Your task to perform on an android device: When is my next meeting? Image 0: 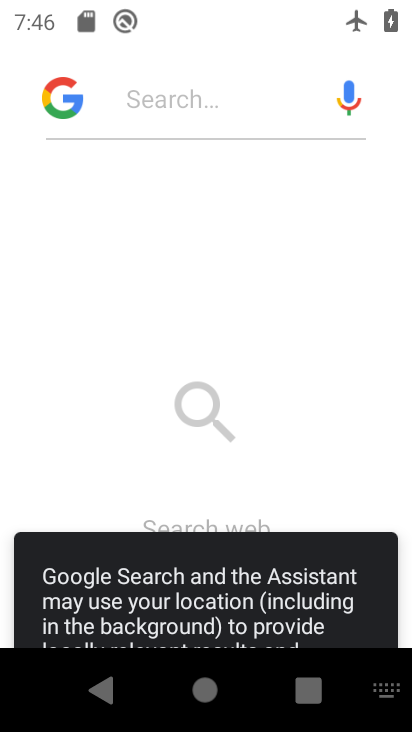
Step 0: press home button
Your task to perform on an android device: When is my next meeting? Image 1: 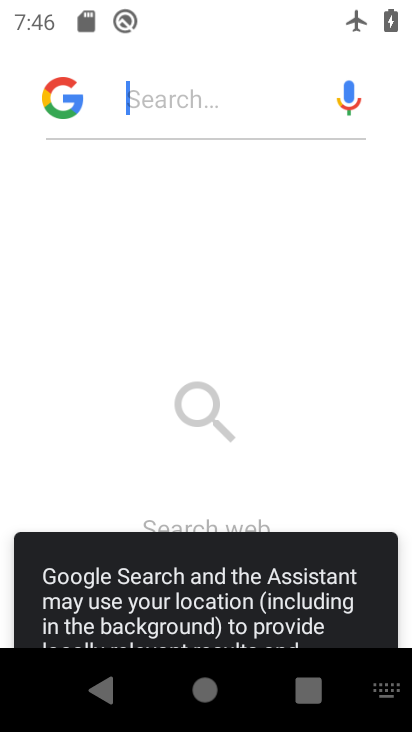
Step 1: press home button
Your task to perform on an android device: When is my next meeting? Image 2: 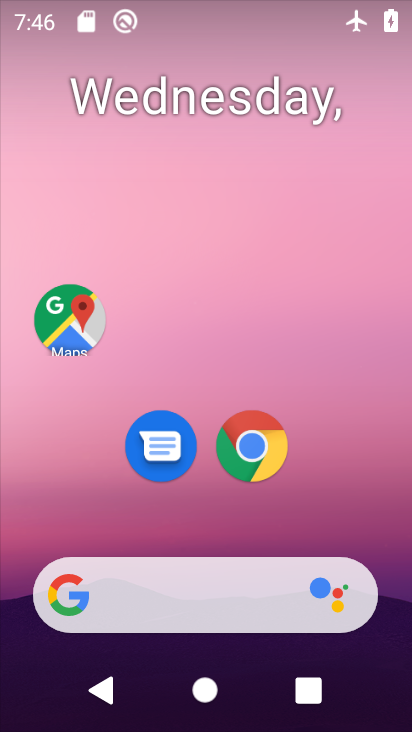
Step 2: drag from (42, 386) to (411, 406)
Your task to perform on an android device: When is my next meeting? Image 3: 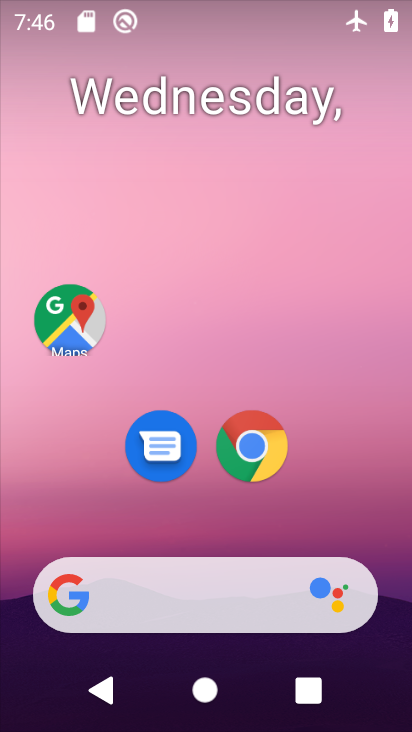
Step 3: drag from (194, 494) to (200, 9)
Your task to perform on an android device: When is my next meeting? Image 4: 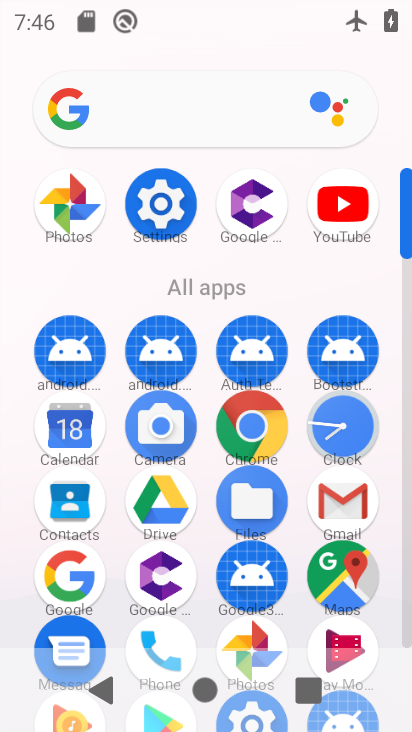
Step 4: click (66, 426)
Your task to perform on an android device: When is my next meeting? Image 5: 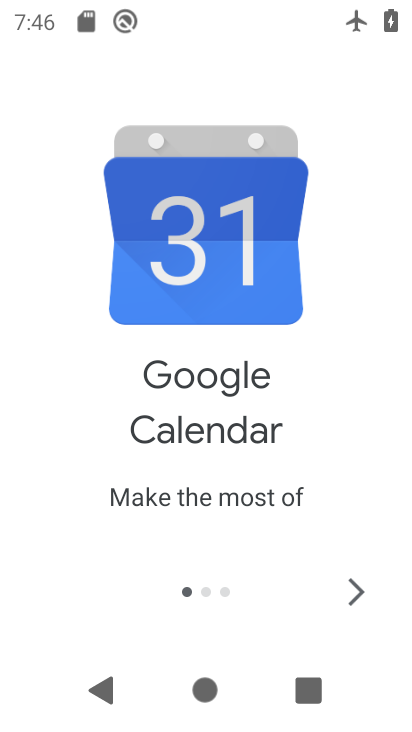
Step 5: click (353, 590)
Your task to perform on an android device: When is my next meeting? Image 6: 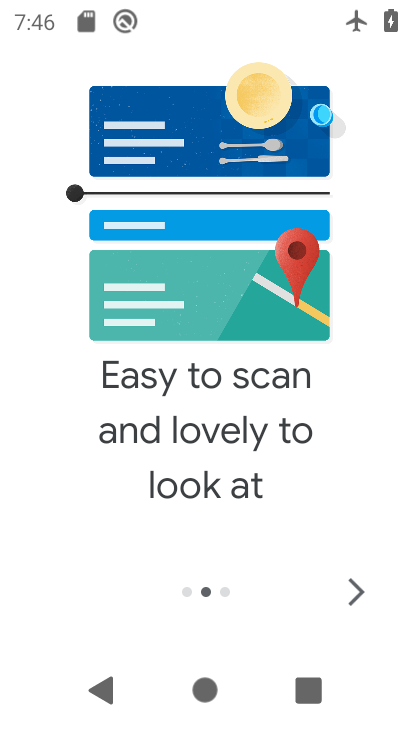
Step 6: click (353, 590)
Your task to perform on an android device: When is my next meeting? Image 7: 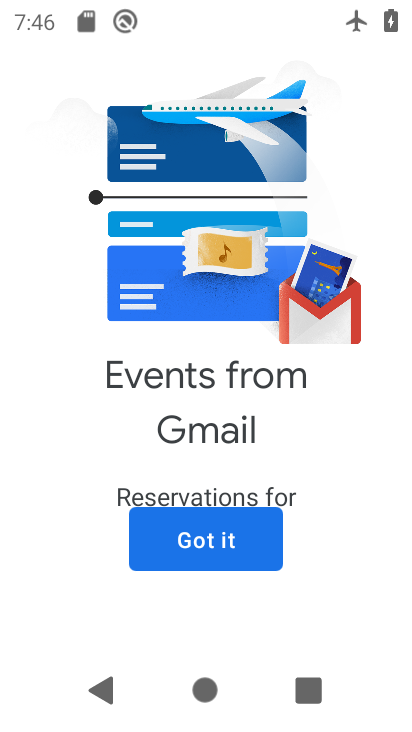
Step 7: click (178, 536)
Your task to perform on an android device: When is my next meeting? Image 8: 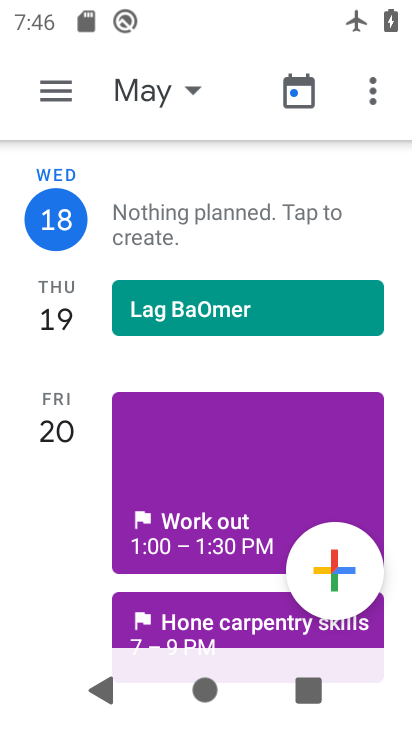
Step 8: task complete